Your task to perform on an android device: turn on airplane mode Image 0: 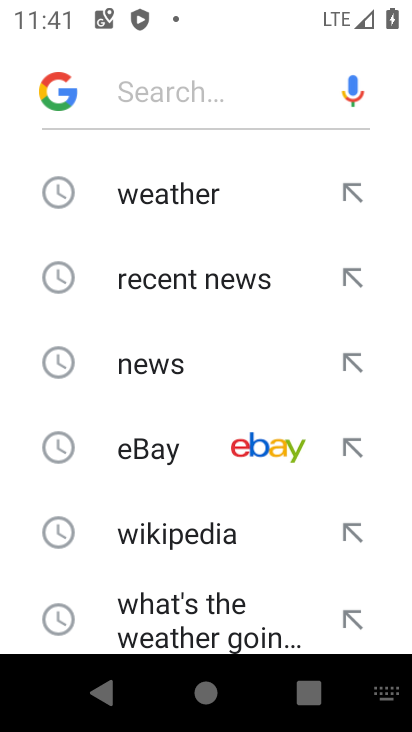
Step 0: click (150, 60)
Your task to perform on an android device: turn on airplane mode Image 1: 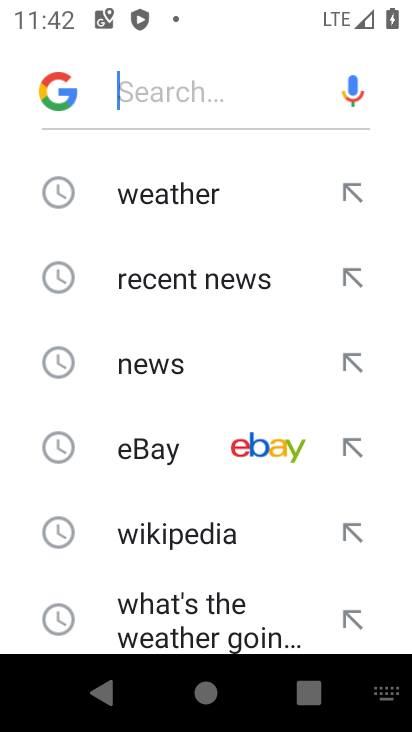
Step 1: click (143, 67)
Your task to perform on an android device: turn on airplane mode Image 2: 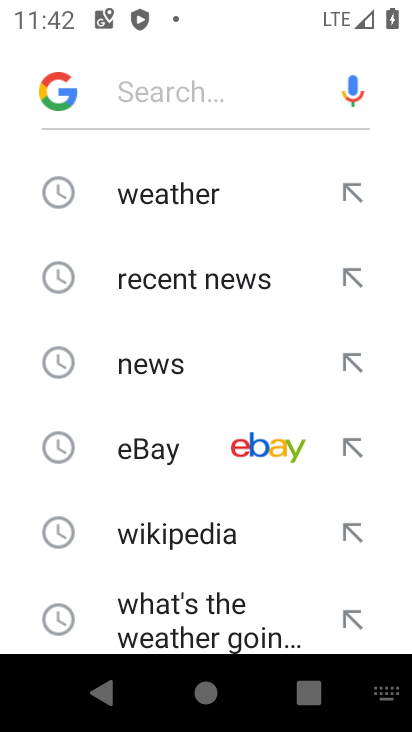
Step 2: press home button
Your task to perform on an android device: turn on airplane mode Image 3: 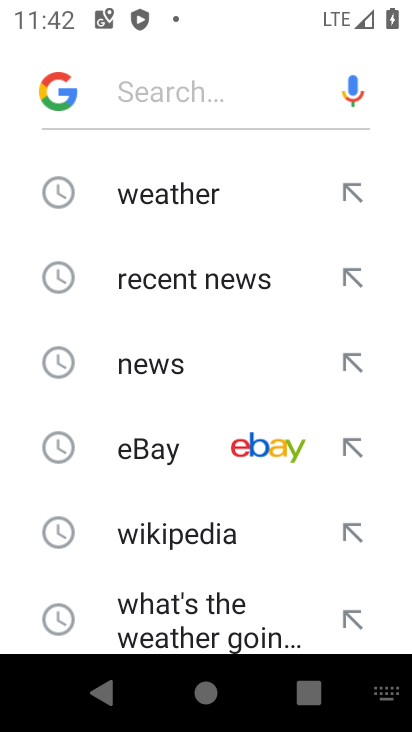
Step 3: press home button
Your task to perform on an android device: turn on airplane mode Image 4: 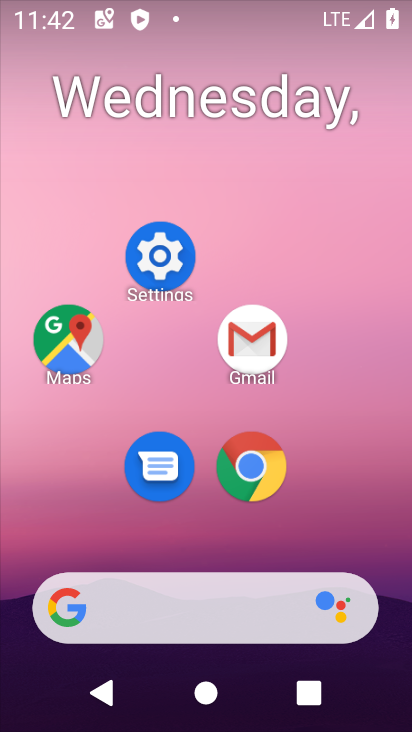
Step 4: drag from (205, 505) to (262, 5)
Your task to perform on an android device: turn on airplane mode Image 5: 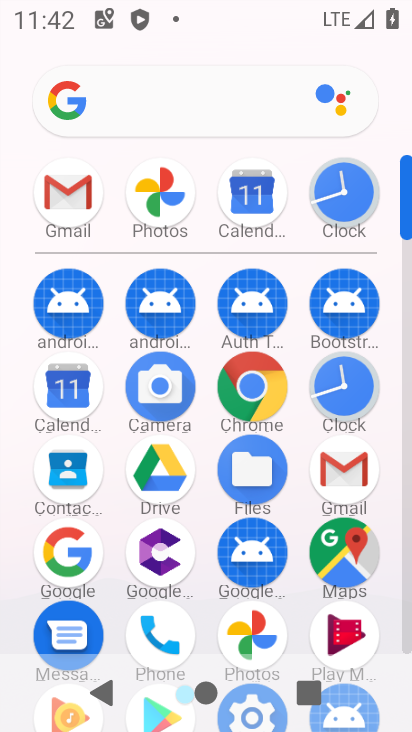
Step 5: drag from (209, 436) to (209, 187)
Your task to perform on an android device: turn on airplane mode Image 6: 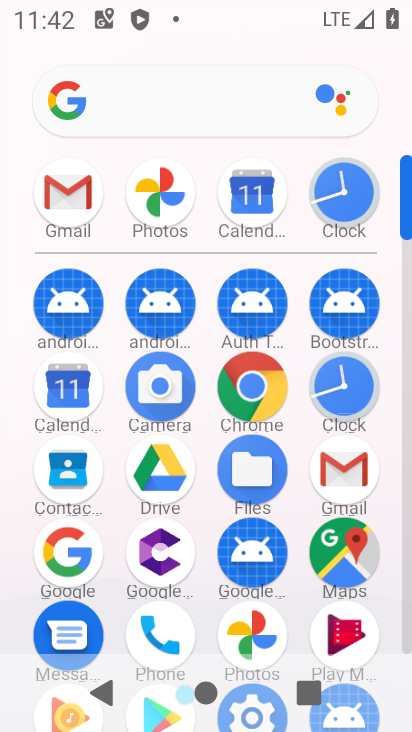
Step 6: drag from (221, 579) to (253, 228)
Your task to perform on an android device: turn on airplane mode Image 7: 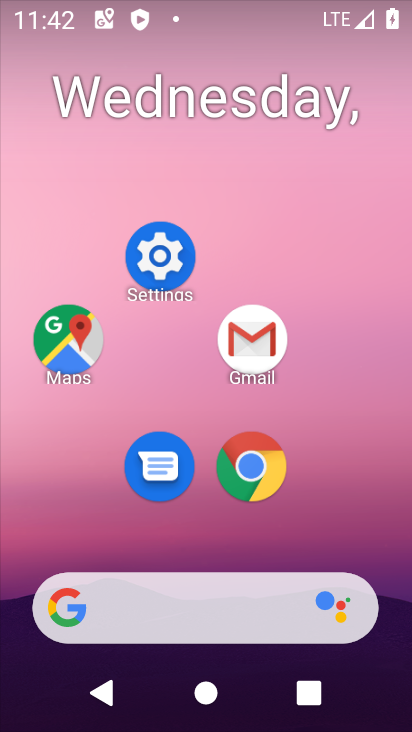
Step 7: click (177, 260)
Your task to perform on an android device: turn on airplane mode Image 8: 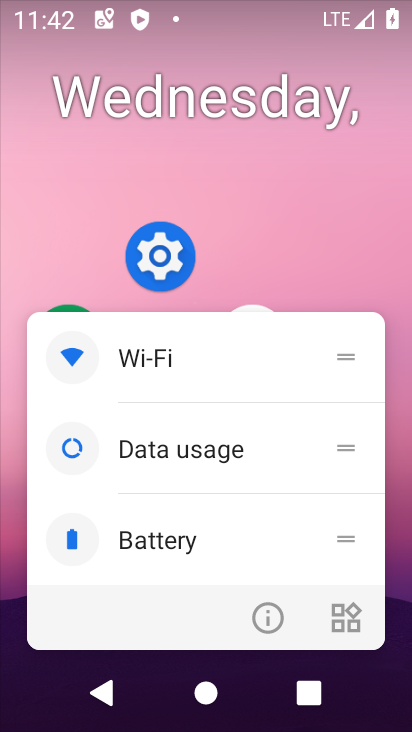
Step 8: click (271, 612)
Your task to perform on an android device: turn on airplane mode Image 9: 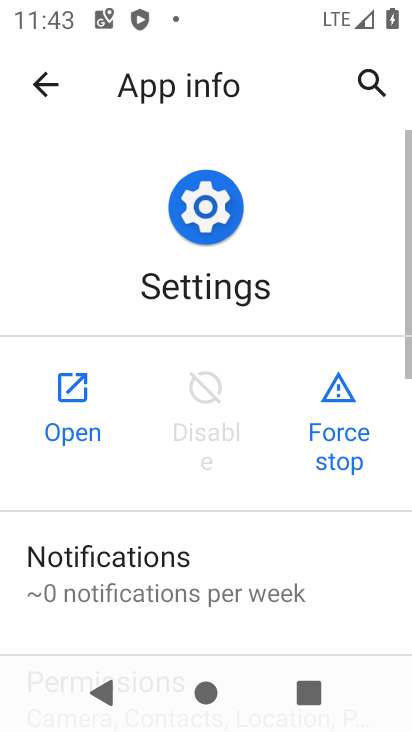
Step 9: click (79, 397)
Your task to perform on an android device: turn on airplane mode Image 10: 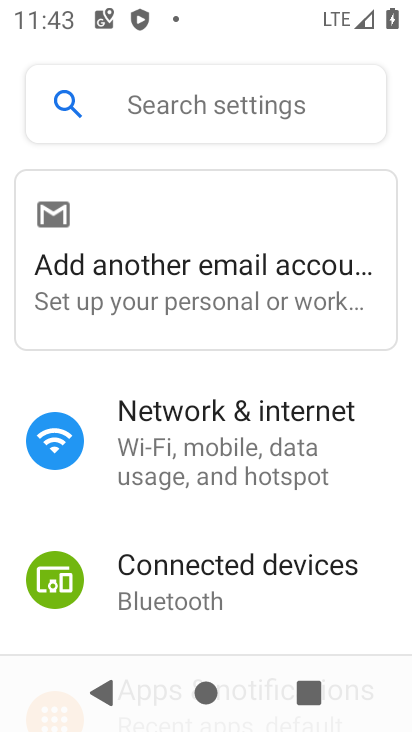
Step 10: drag from (193, 476) to (246, 178)
Your task to perform on an android device: turn on airplane mode Image 11: 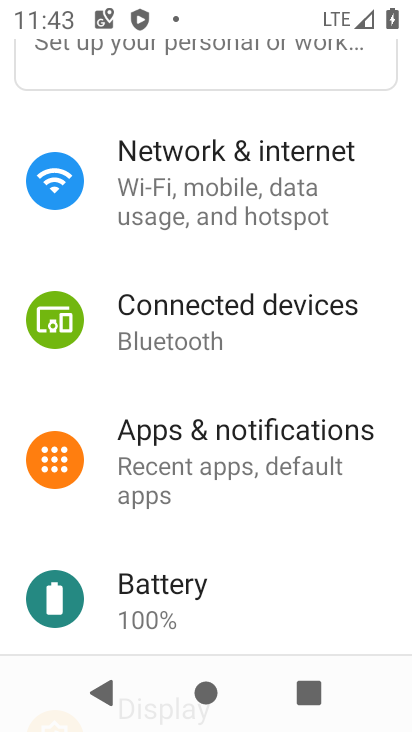
Step 11: click (253, 212)
Your task to perform on an android device: turn on airplane mode Image 12: 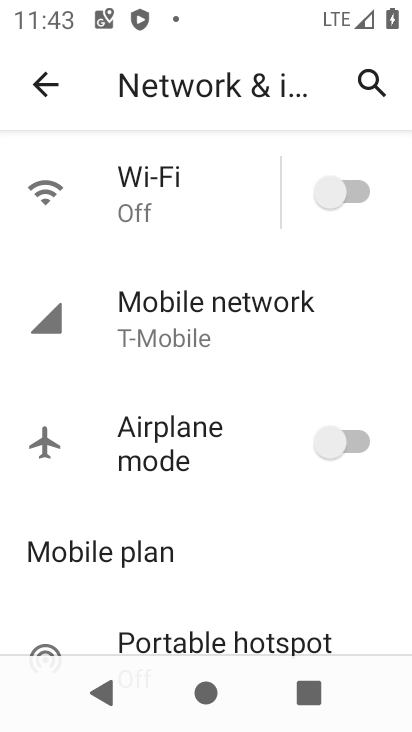
Step 12: click (278, 440)
Your task to perform on an android device: turn on airplane mode Image 13: 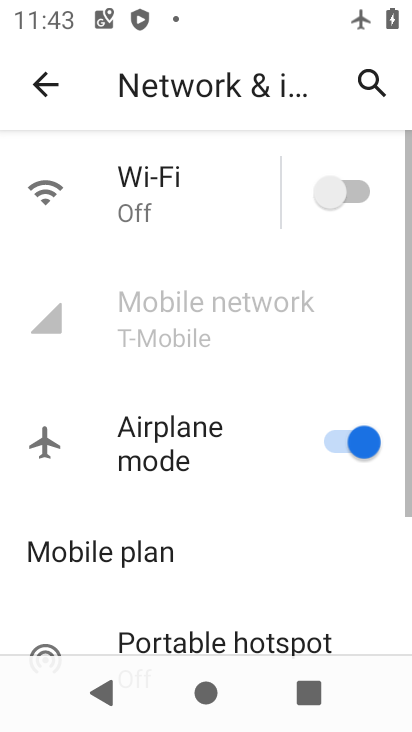
Step 13: task complete